Your task to perform on an android device: Add "razer blade" to the cart on ebay, then select checkout. Image 0: 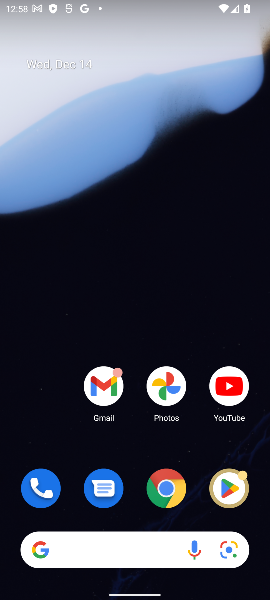
Step 0: drag from (154, 528) to (164, 87)
Your task to perform on an android device: Add "razer blade" to the cart on ebay, then select checkout. Image 1: 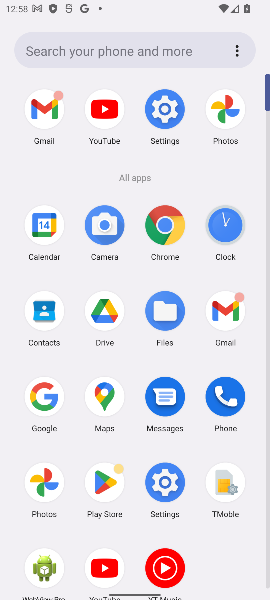
Step 1: click (36, 387)
Your task to perform on an android device: Add "razer blade" to the cart on ebay, then select checkout. Image 2: 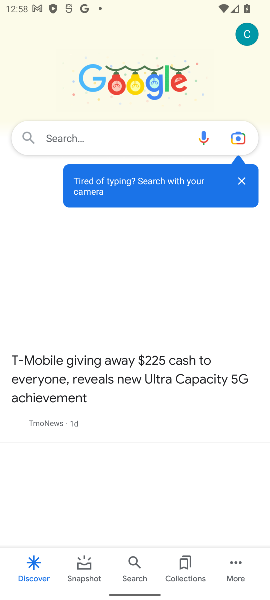
Step 2: click (109, 131)
Your task to perform on an android device: Add "razer blade" to the cart on ebay, then select checkout. Image 3: 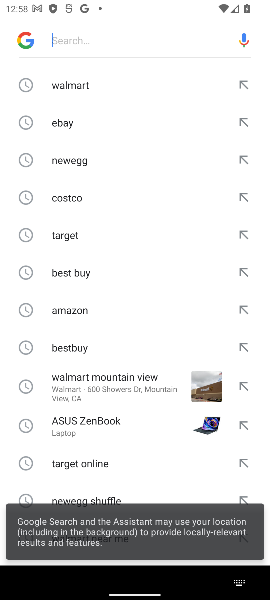
Step 3: click (66, 123)
Your task to perform on an android device: Add "razer blade" to the cart on ebay, then select checkout. Image 4: 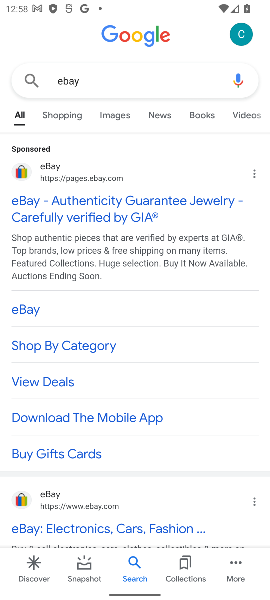
Step 4: click (85, 206)
Your task to perform on an android device: Add "razer blade" to the cart on ebay, then select checkout. Image 5: 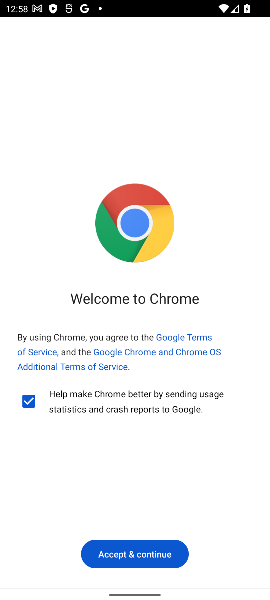
Step 5: click (148, 558)
Your task to perform on an android device: Add "razer blade" to the cart on ebay, then select checkout. Image 6: 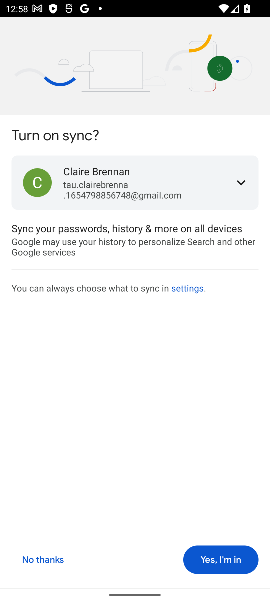
Step 6: click (191, 566)
Your task to perform on an android device: Add "razer blade" to the cart on ebay, then select checkout. Image 7: 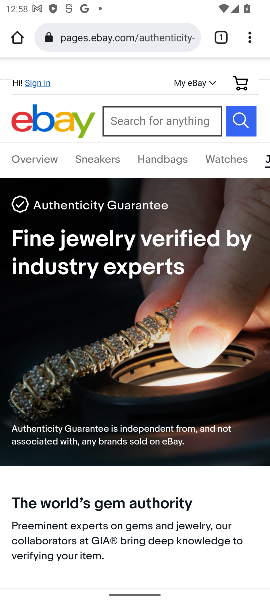
Step 7: click (140, 120)
Your task to perform on an android device: Add "razer blade" to the cart on ebay, then select checkout. Image 8: 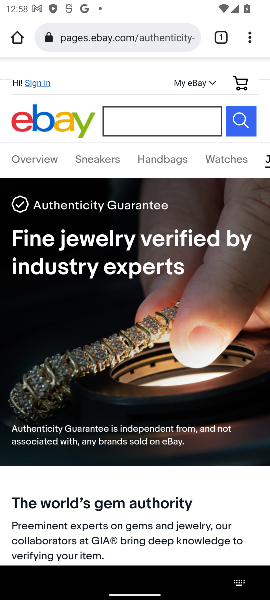
Step 8: type "razer blade"
Your task to perform on an android device: Add "razer blade" to the cart on ebay, then select checkout. Image 9: 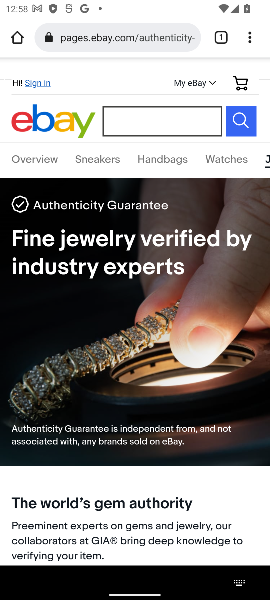
Step 9: click (244, 130)
Your task to perform on an android device: Add "razer blade" to the cart on ebay, then select checkout. Image 10: 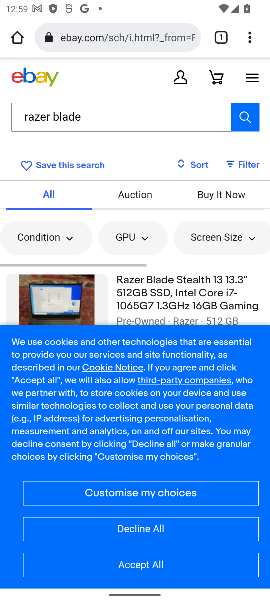
Step 10: click (155, 288)
Your task to perform on an android device: Add "razer blade" to the cart on ebay, then select checkout. Image 11: 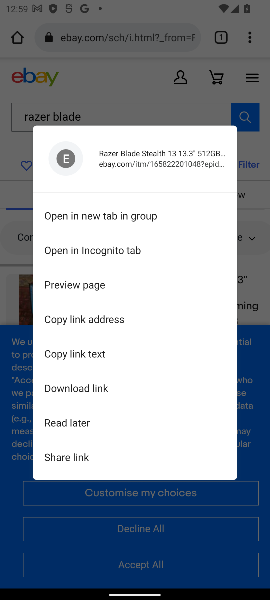
Step 11: click (247, 210)
Your task to perform on an android device: Add "razer blade" to the cart on ebay, then select checkout. Image 12: 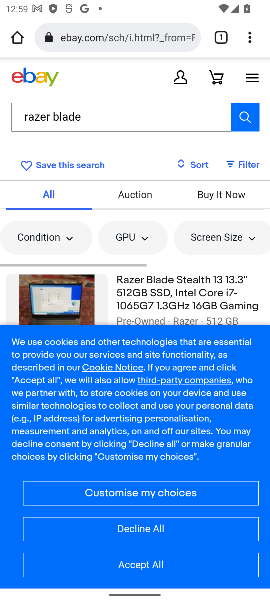
Step 12: click (140, 528)
Your task to perform on an android device: Add "razer blade" to the cart on ebay, then select checkout. Image 13: 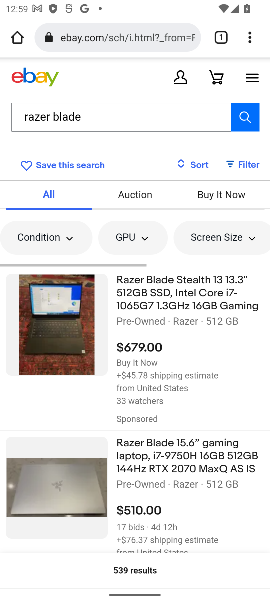
Step 13: click (178, 298)
Your task to perform on an android device: Add "razer blade" to the cart on ebay, then select checkout. Image 14: 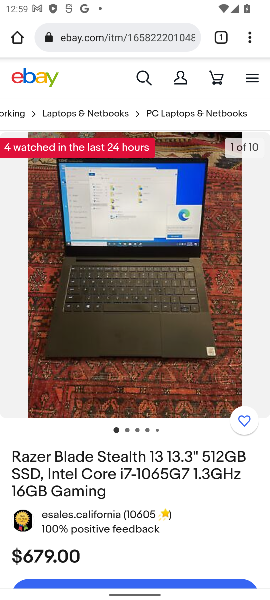
Step 14: drag from (146, 515) to (153, 304)
Your task to perform on an android device: Add "razer blade" to the cart on ebay, then select checkout. Image 15: 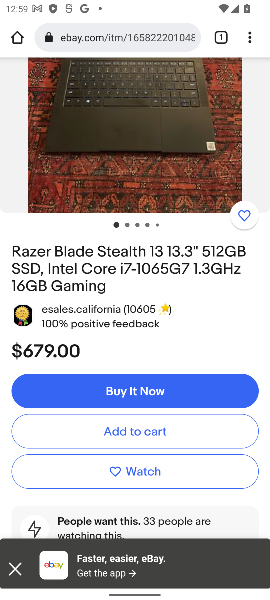
Step 15: click (143, 434)
Your task to perform on an android device: Add "razer blade" to the cart on ebay, then select checkout. Image 16: 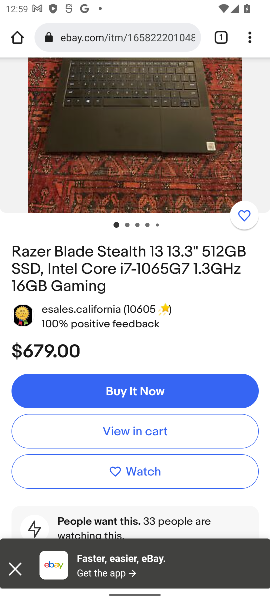
Step 16: click (143, 434)
Your task to perform on an android device: Add "razer blade" to the cart on ebay, then select checkout. Image 17: 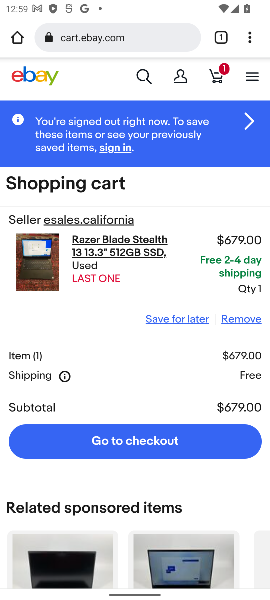
Step 17: click (147, 446)
Your task to perform on an android device: Add "razer blade" to the cart on ebay, then select checkout. Image 18: 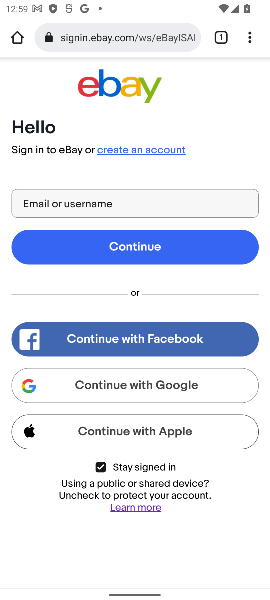
Step 18: task complete